Your task to perform on an android device: Open Google Image 0: 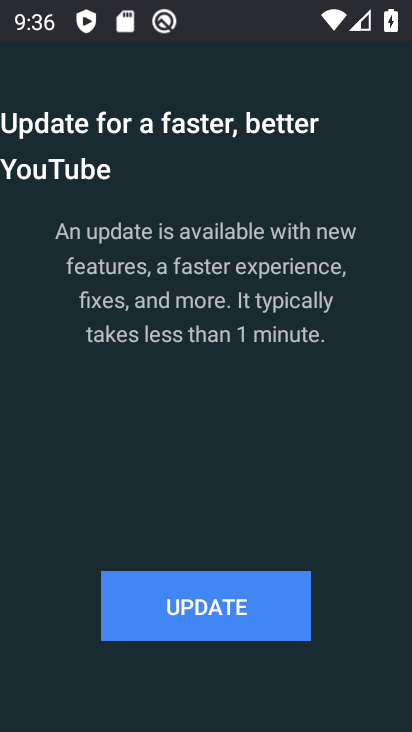
Step 0: press home button
Your task to perform on an android device: Open Google Image 1: 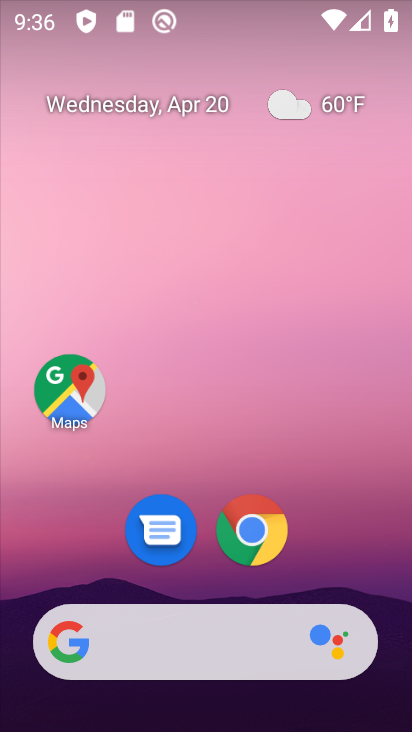
Step 1: drag from (307, 529) to (339, 40)
Your task to perform on an android device: Open Google Image 2: 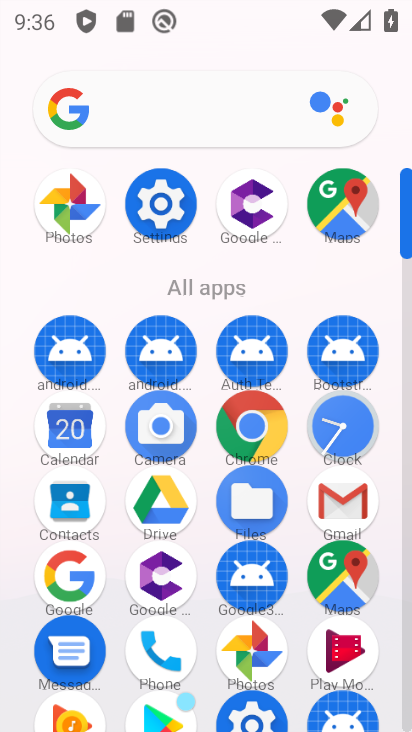
Step 2: click (63, 575)
Your task to perform on an android device: Open Google Image 3: 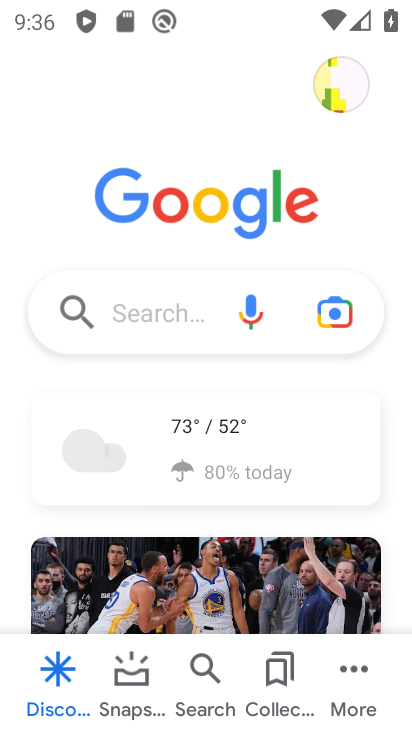
Step 3: task complete